Your task to perform on an android device: Is it going to rain tomorrow? Image 0: 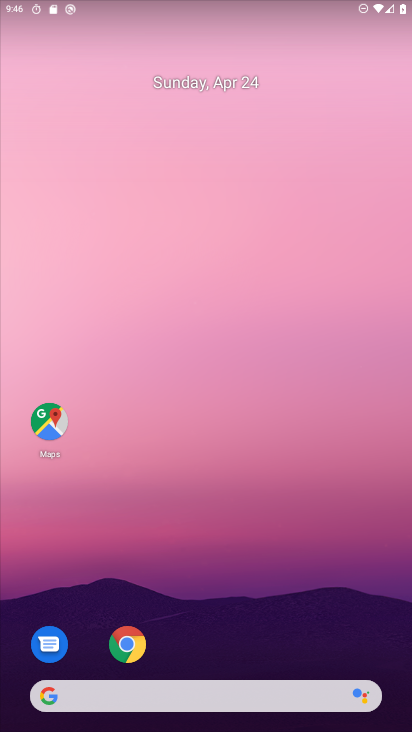
Step 0: click (178, 704)
Your task to perform on an android device: Is it going to rain tomorrow? Image 1: 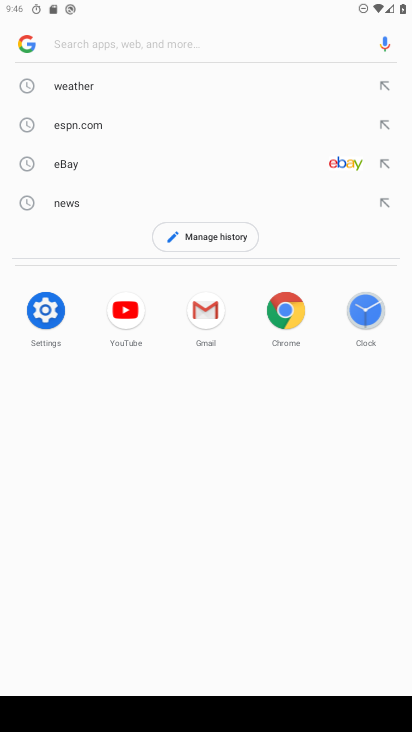
Step 1: click (88, 92)
Your task to perform on an android device: Is it going to rain tomorrow? Image 2: 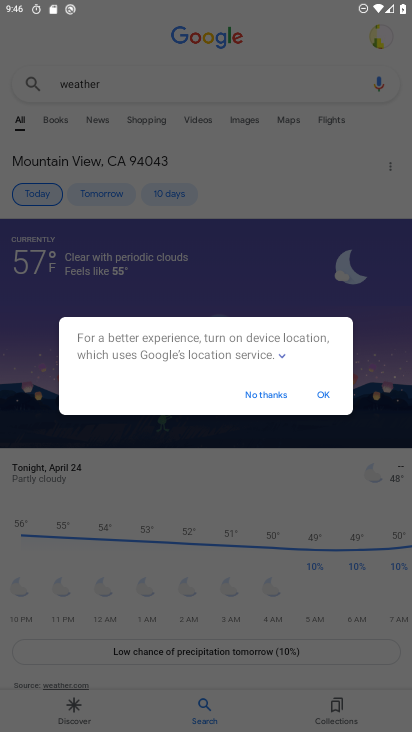
Step 2: click (316, 391)
Your task to perform on an android device: Is it going to rain tomorrow? Image 3: 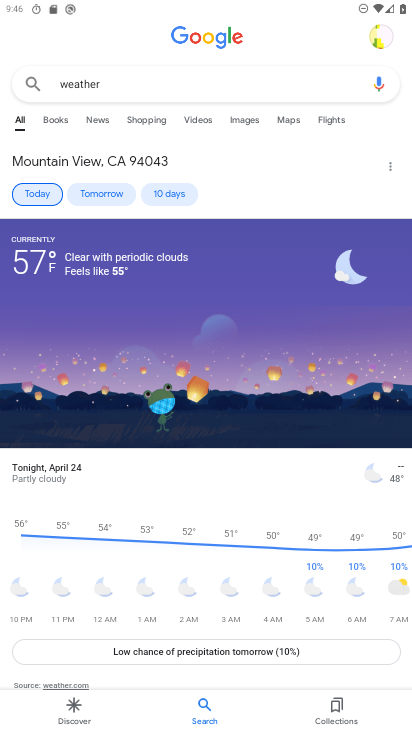
Step 3: click (98, 182)
Your task to perform on an android device: Is it going to rain tomorrow? Image 4: 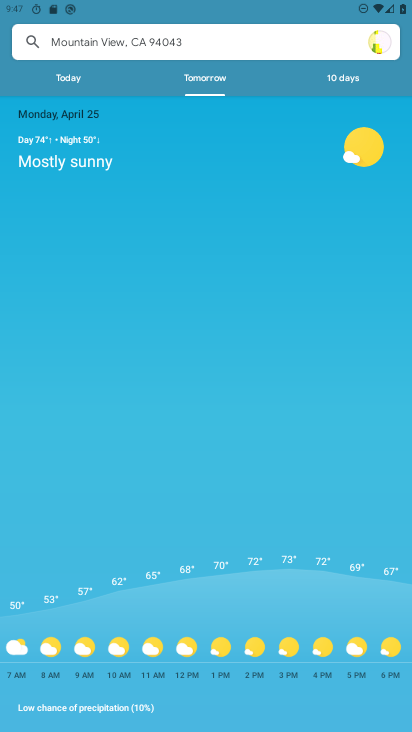
Step 4: task complete